Your task to perform on an android device: Go to notification settings Image 0: 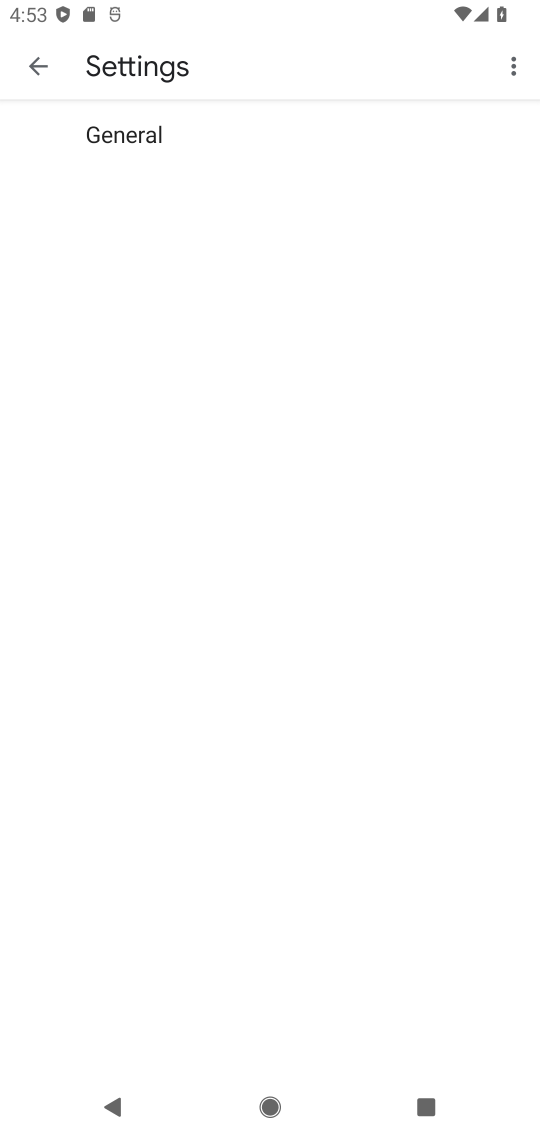
Step 0: press home button
Your task to perform on an android device: Go to notification settings Image 1: 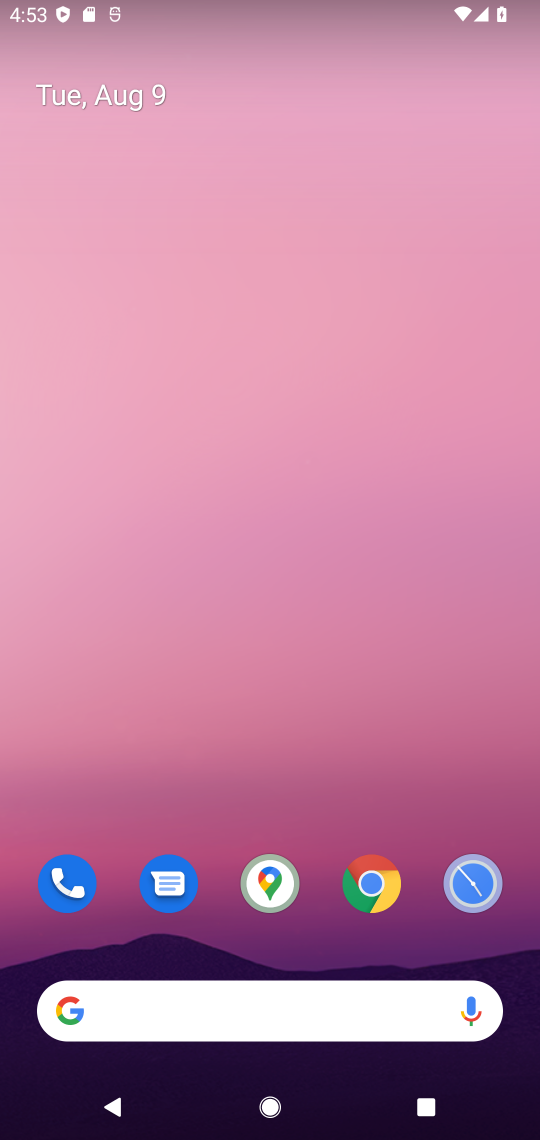
Step 1: drag from (234, 796) to (194, 204)
Your task to perform on an android device: Go to notification settings Image 2: 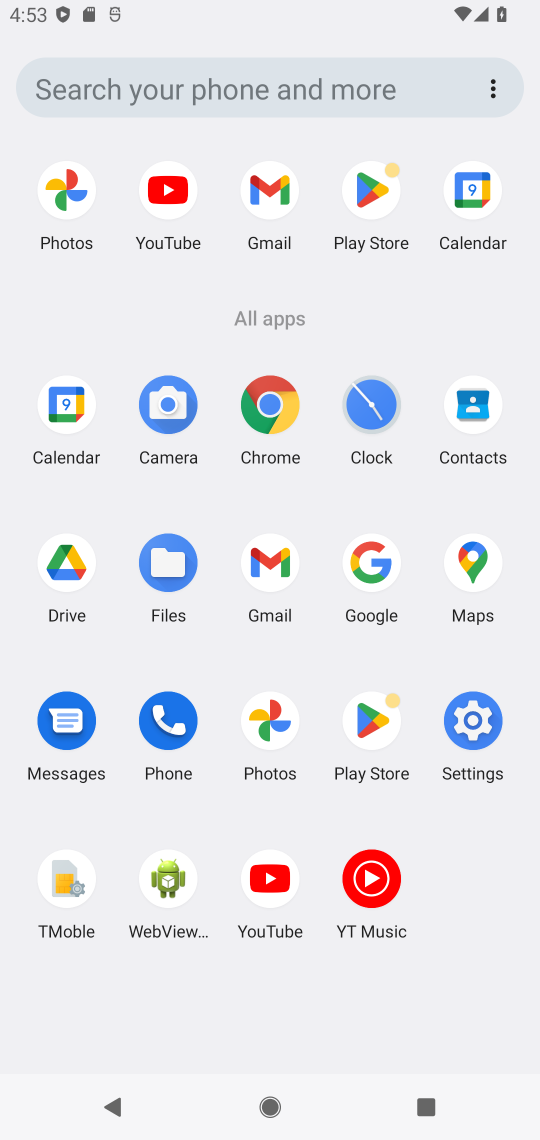
Step 2: click (473, 753)
Your task to perform on an android device: Go to notification settings Image 3: 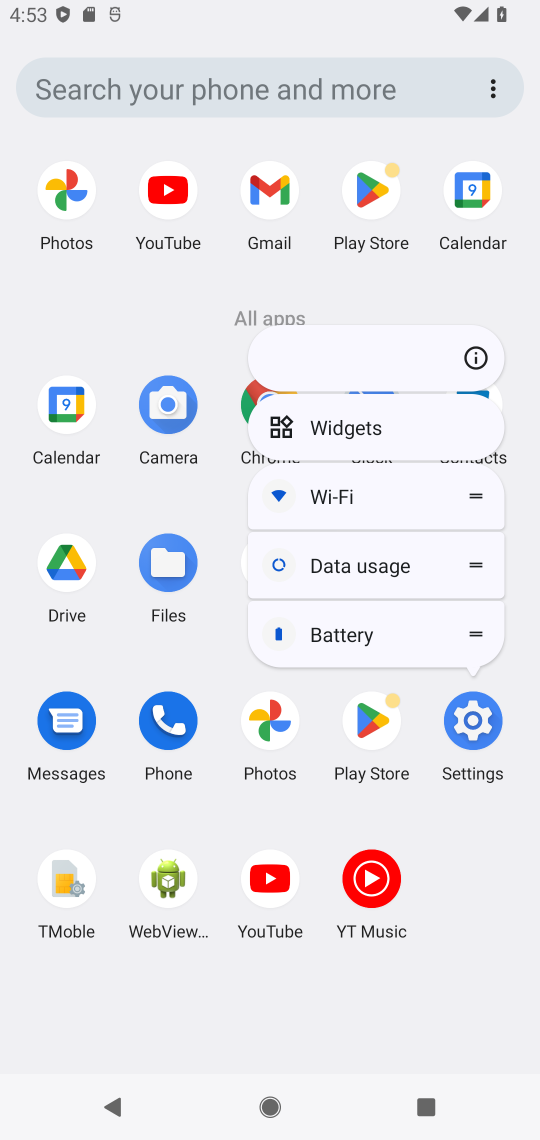
Step 3: click (479, 733)
Your task to perform on an android device: Go to notification settings Image 4: 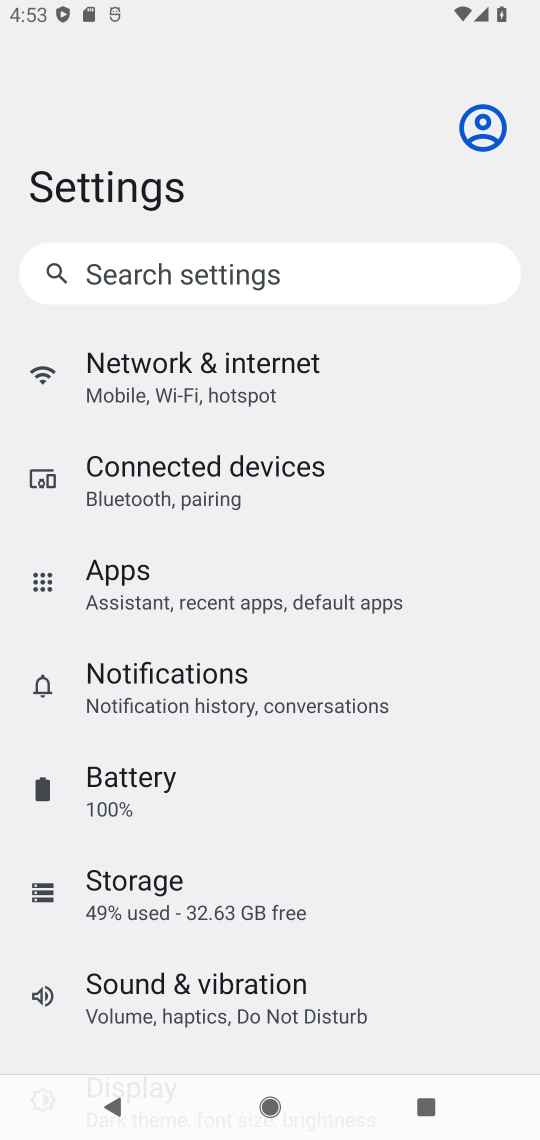
Step 4: click (257, 689)
Your task to perform on an android device: Go to notification settings Image 5: 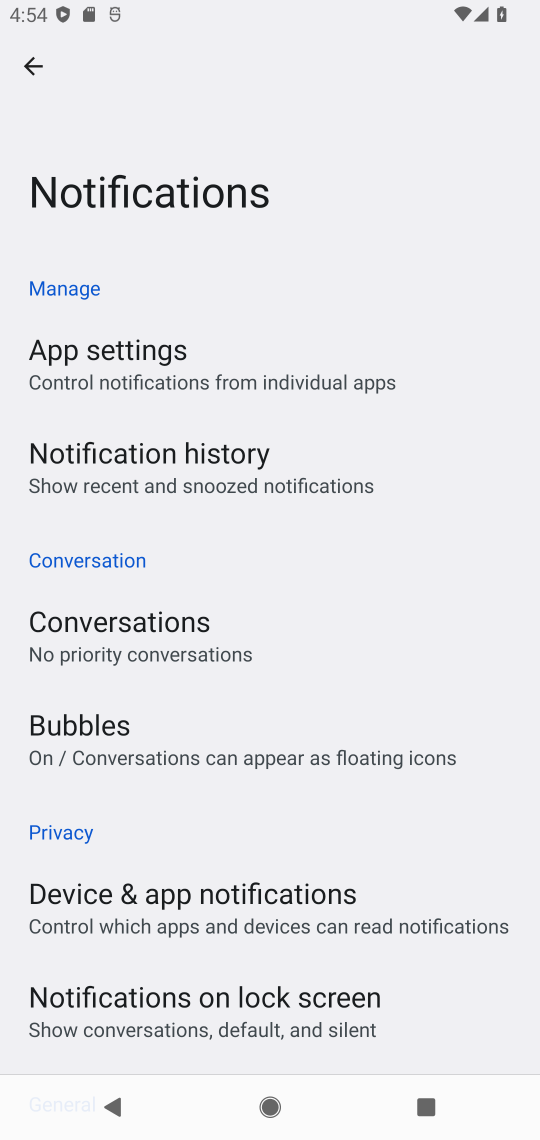
Step 5: task complete